Your task to perform on an android device: Open calendar and show me the fourth week of next month Image 0: 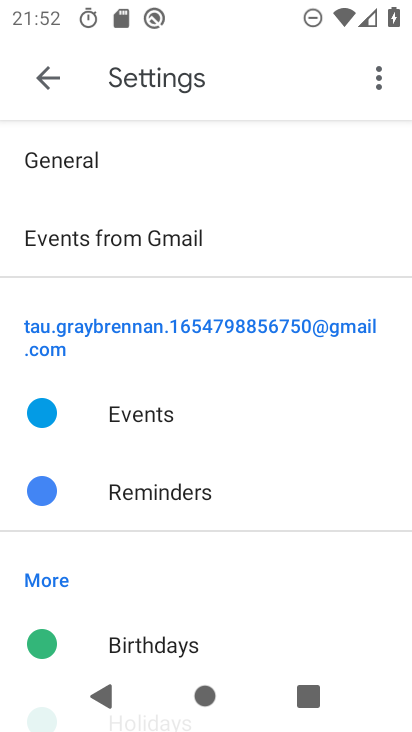
Step 0: press home button
Your task to perform on an android device: Open calendar and show me the fourth week of next month Image 1: 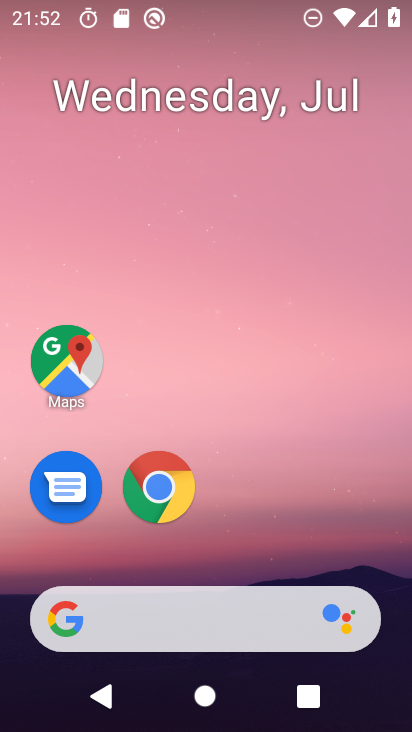
Step 1: drag from (359, 536) to (394, 47)
Your task to perform on an android device: Open calendar and show me the fourth week of next month Image 2: 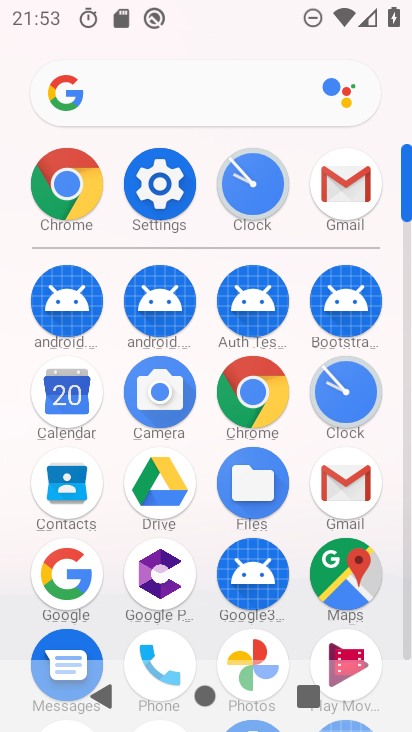
Step 2: click (74, 395)
Your task to perform on an android device: Open calendar and show me the fourth week of next month Image 3: 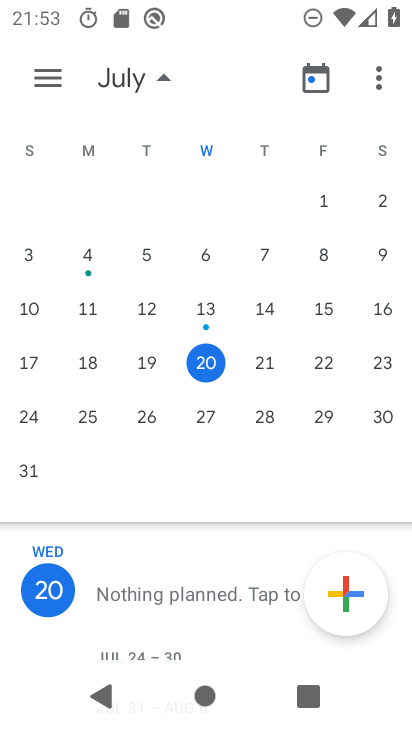
Step 3: drag from (392, 226) to (0, 219)
Your task to perform on an android device: Open calendar and show me the fourth week of next month Image 4: 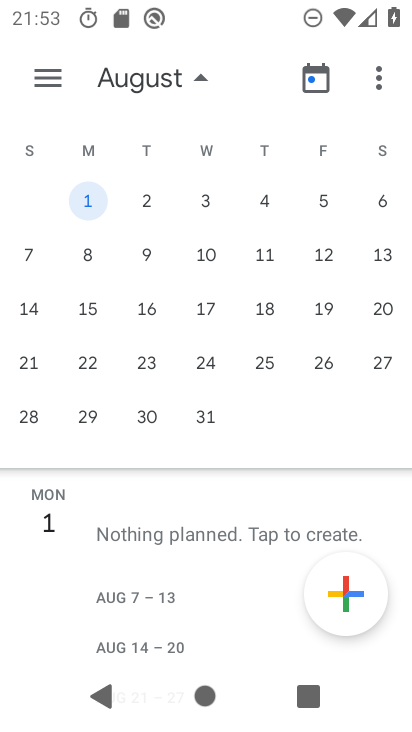
Step 4: click (84, 360)
Your task to perform on an android device: Open calendar and show me the fourth week of next month Image 5: 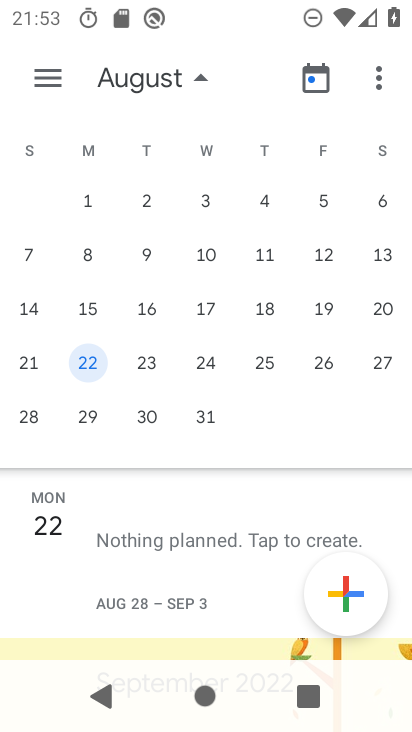
Step 5: task complete